Your task to perform on an android device: Open Google Maps and go to "Timeline" Image 0: 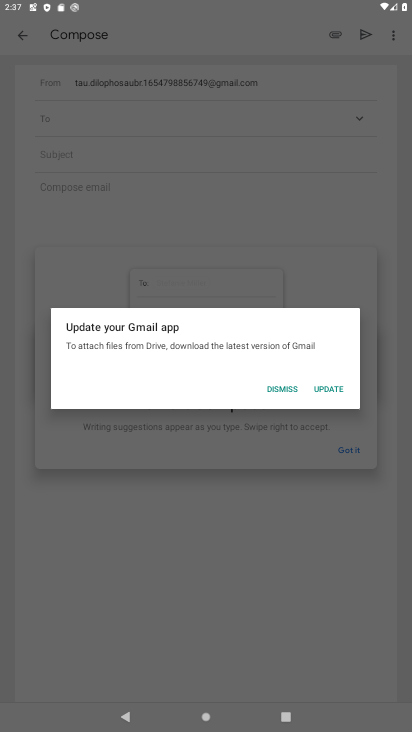
Step 0: press home button
Your task to perform on an android device: Open Google Maps and go to "Timeline" Image 1: 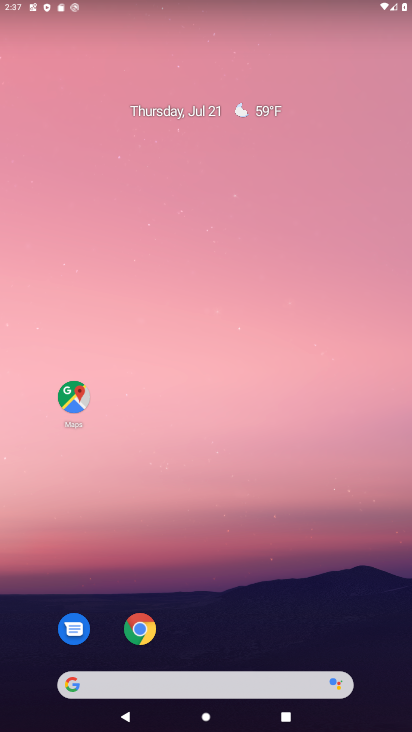
Step 1: drag from (234, 726) to (206, 118)
Your task to perform on an android device: Open Google Maps and go to "Timeline" Image 2: 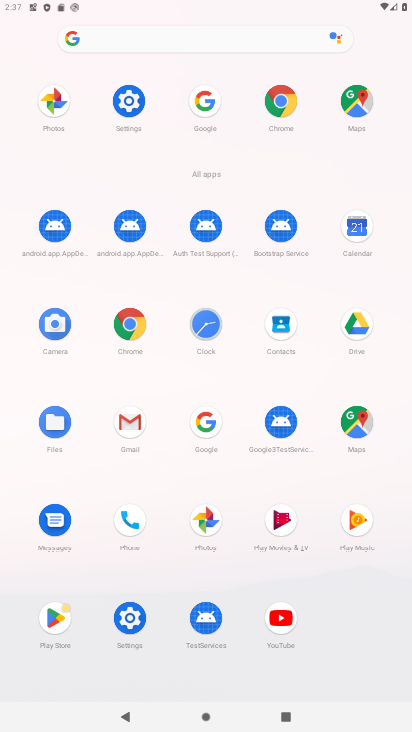
Step 2: click (352, 427)
Your task to perform on an android device: Open Google Maps and go to "Timeline" Image 3: 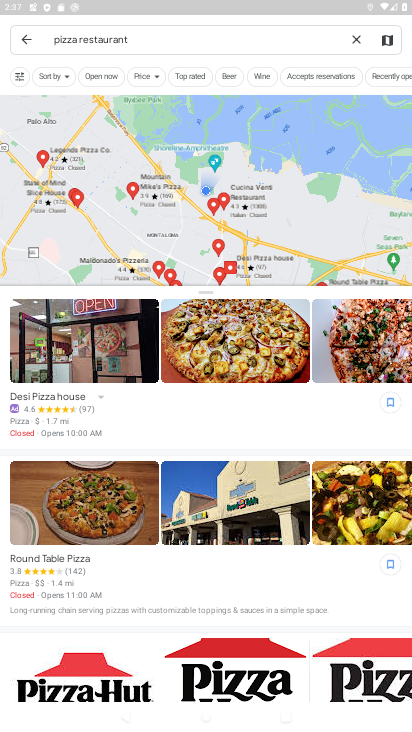
Step 3: click (21, 32)
Your task to perform on an android device: Open Google Maps and go to "Timeline" Image 4: 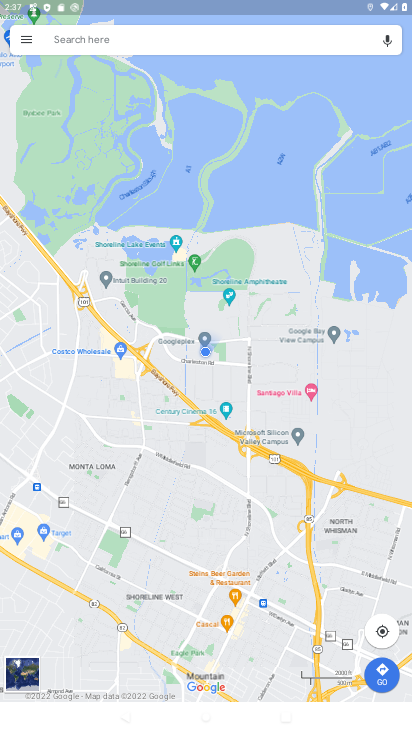
Step 4: click (26, 37)
Your task to perform on an android device: Open Google Maps and go to "Timeline" Image 5: 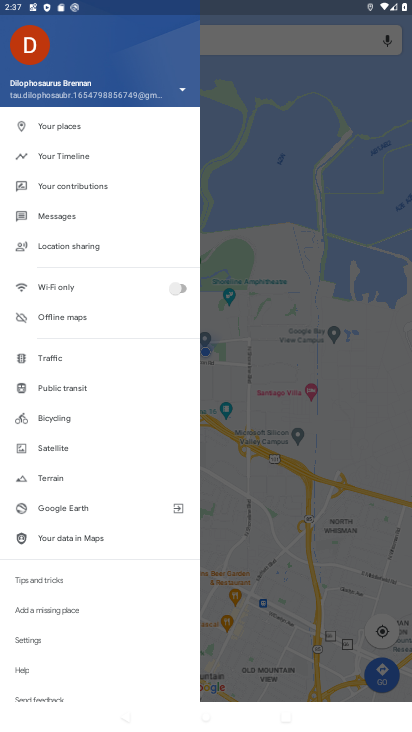
Step 5: click (48, 154)
Your task to perform on an android device: Open Google Maps and go to "Timeline" Image 6: 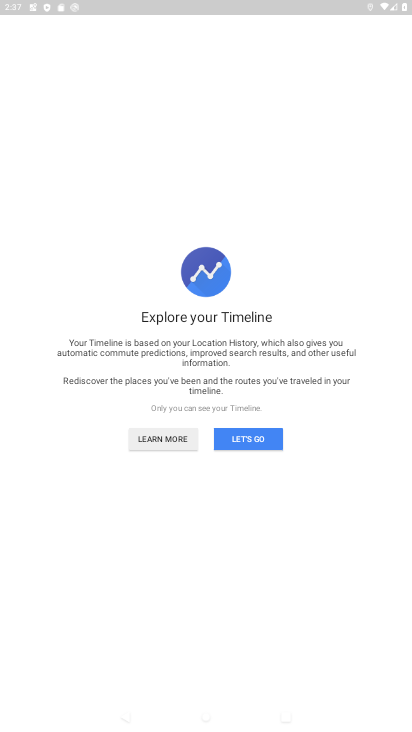
Step 6: click (249, 438)
Your task to perform on an android device: Open Google Maps and go to "Timeline" Image 7: 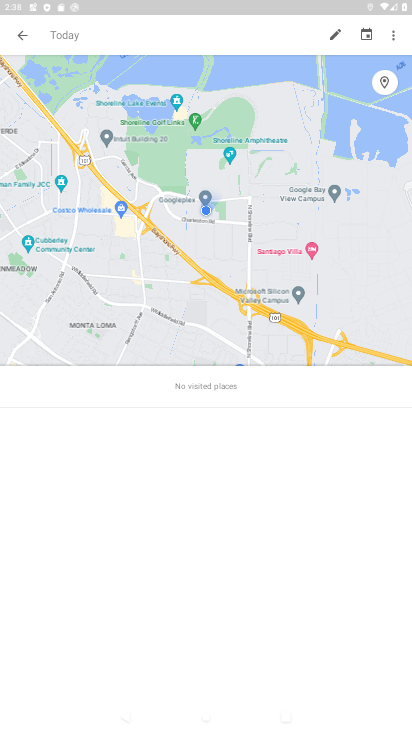
Step 7: task complete